Your task to perform on an android device: What's the weather going to be this weekend? Image 0: 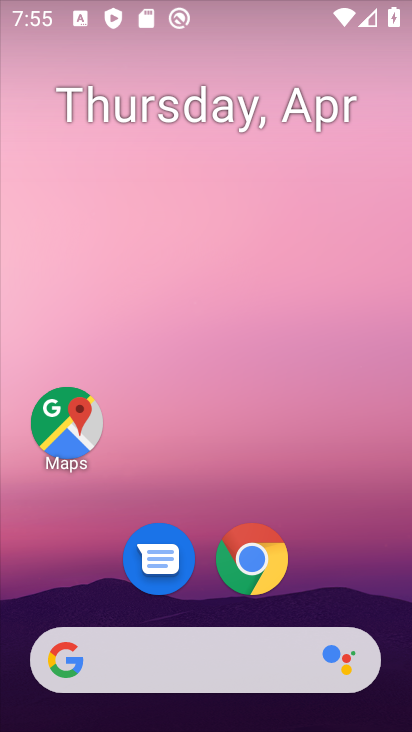
Step 0: drag from (206, 605) to (251, 20)
Your task to perform on an android device: What's the weather going to be this weekend? Image 1: 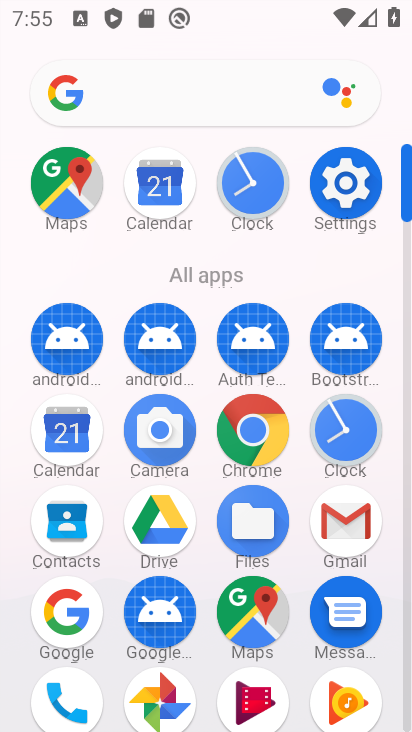
Step 1: press home button
Your task to perform on an android device: What's the weather going to be this weekend? Image 2: 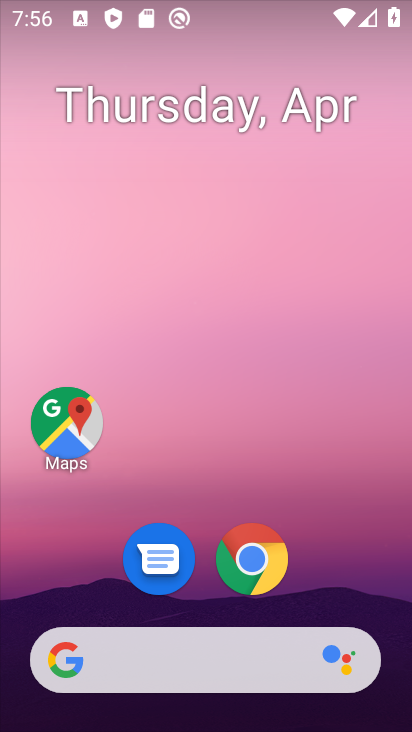
Step 2: click (211, 659)
Your task to perform on an android device: What's the weather going to be this weekend? Image 3: 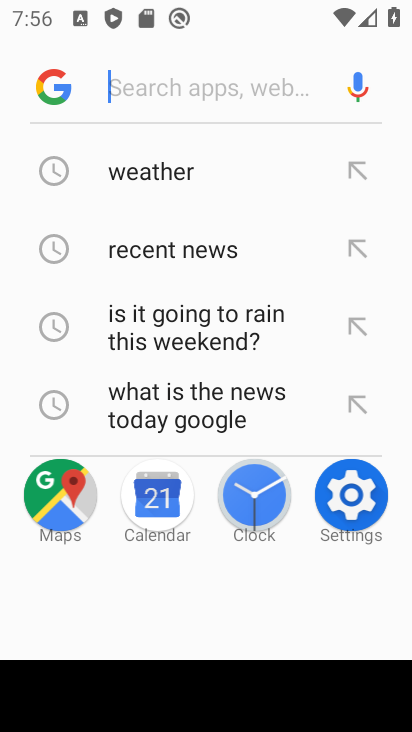
Step 3: type "weather going to be this weekend ?"
Your task to perform on an android device: What's the weather going to be this weekend? Image 4: 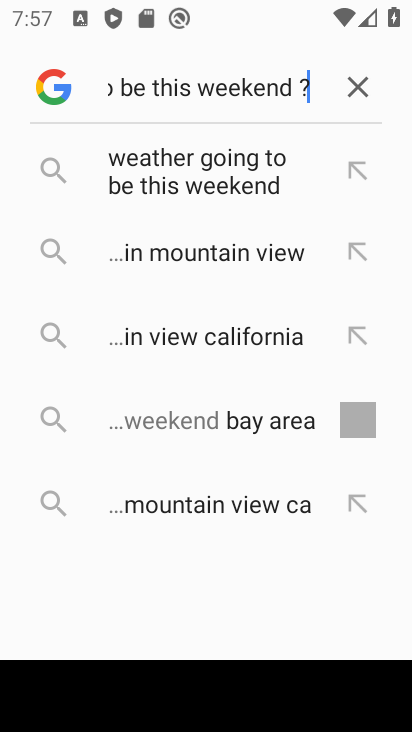
Step 4: click (269, 199)
Your task to perform on an android device: What's the weather going to be this weekend? Image 5: 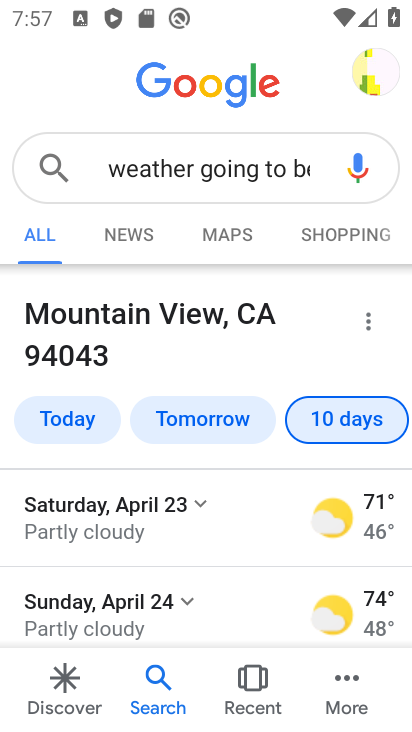
Step 5: task complete